Your task to perform on an android device: set default search engine in the chrome app Image 0: 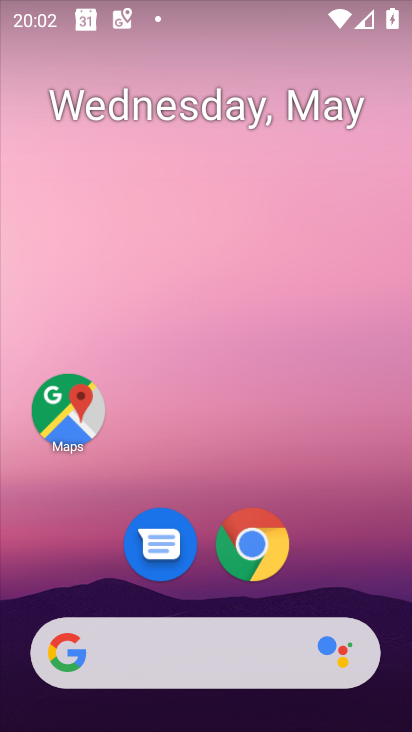
Step 0: click (259, 558)
Your task to perform on an android device: set default search engine in the chrome app Image 1: 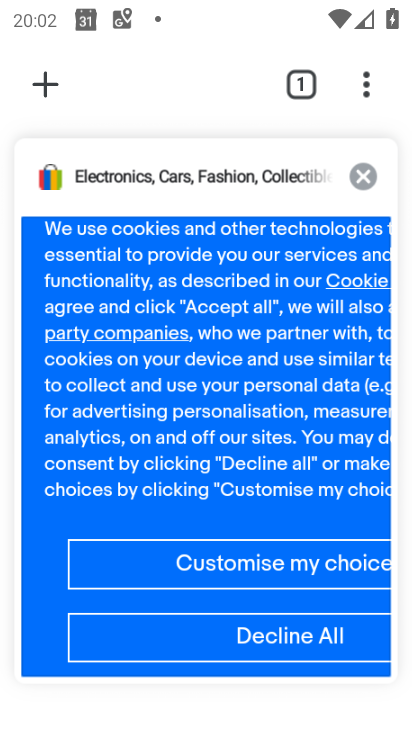
Step 1: click (374, 76)
Your task to perform on an android device: set default search engine in the chrome app Image 2: 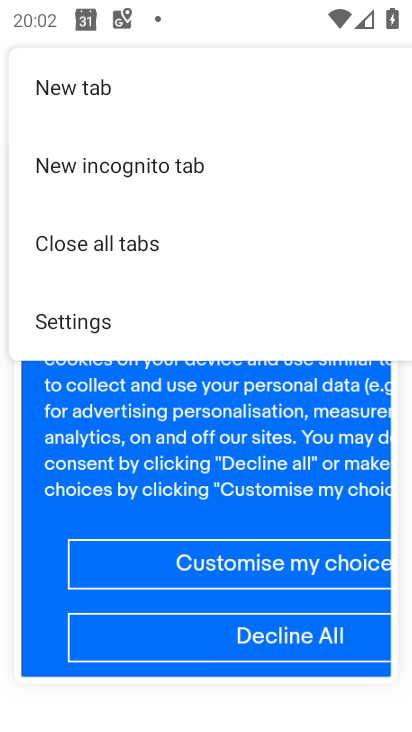
Step 2: click (124, 340)
Your task to perform on an android device: set default search engine in the chrome app Image 3: 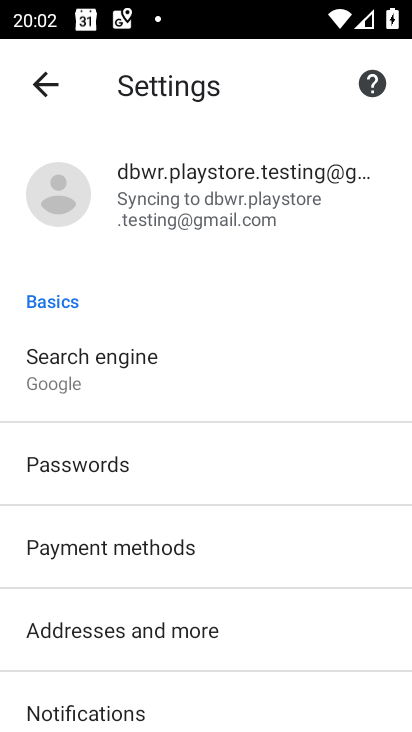
Step 3: click (211, 366)
Your task to perform on an android device: set default search engine in the chrome app Image 4: 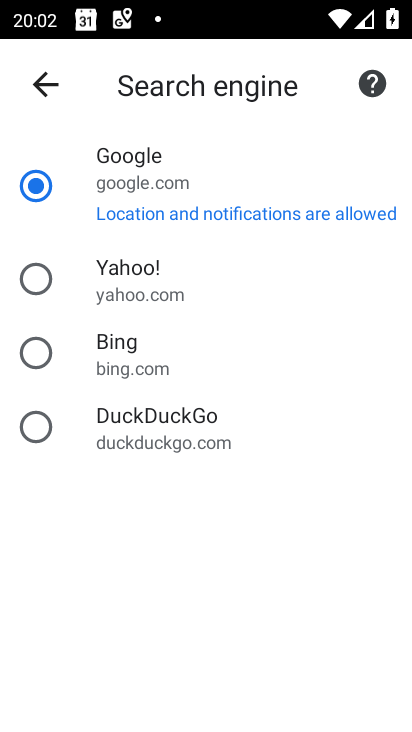
Step 4: click (211, 366)
Your task to perform on an android device: set default search engine in the chrome app Image 5: 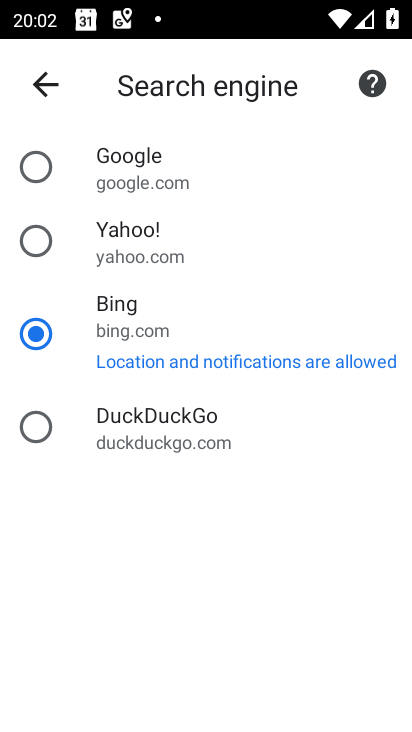
Step 5: task complete